Your task to perform on an android device: find photos in the google photos app Image 0: 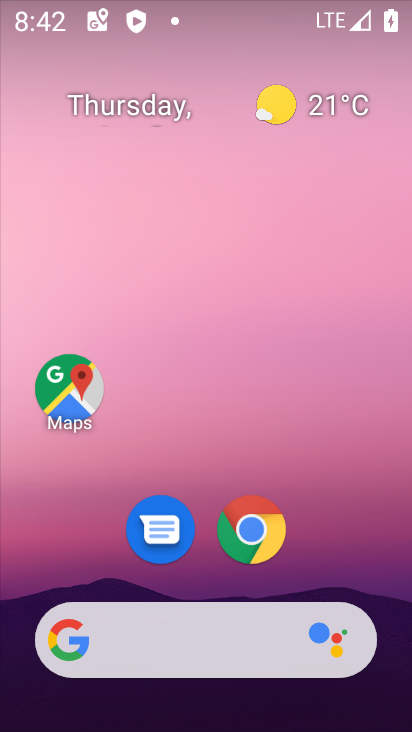
Step 0: drag from (266, 585) to (318, 125)
Your task to perform on an android device: find photos in the google photos app Image 1: 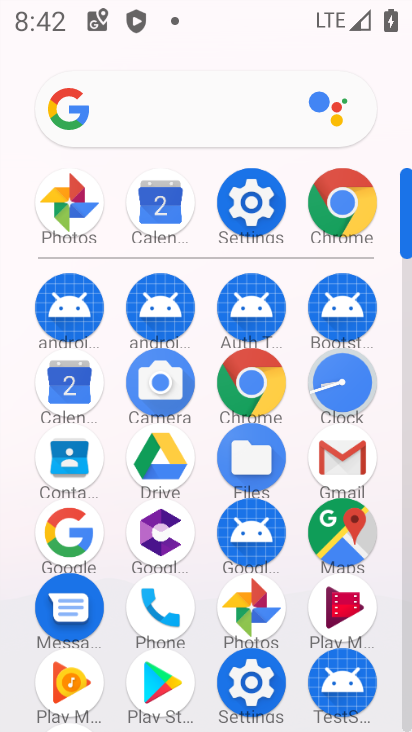
Step 1: click (246, 599)
Your task to perform on an android device: find photos in the google photos app Image 2: 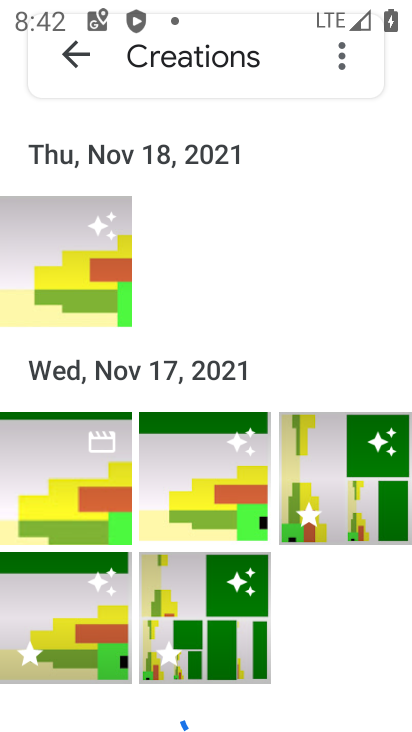
Step 2: click (61, 50)
Your task to perform on an android device: find photos in the google photos app Image 3: 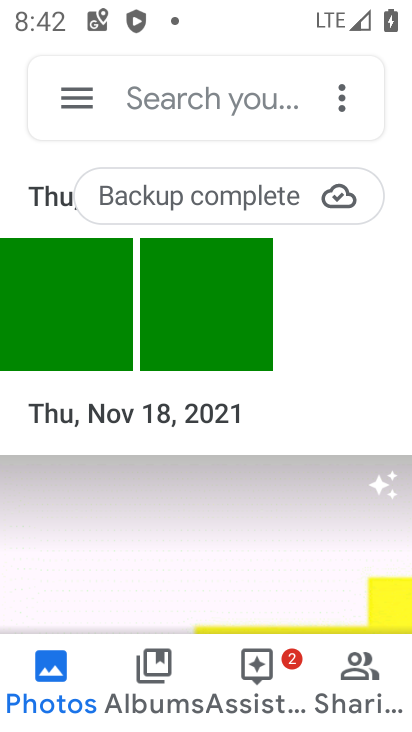
Step 3: task complete